Your task to perform on an android device: Go to accessibility settings Image 0: 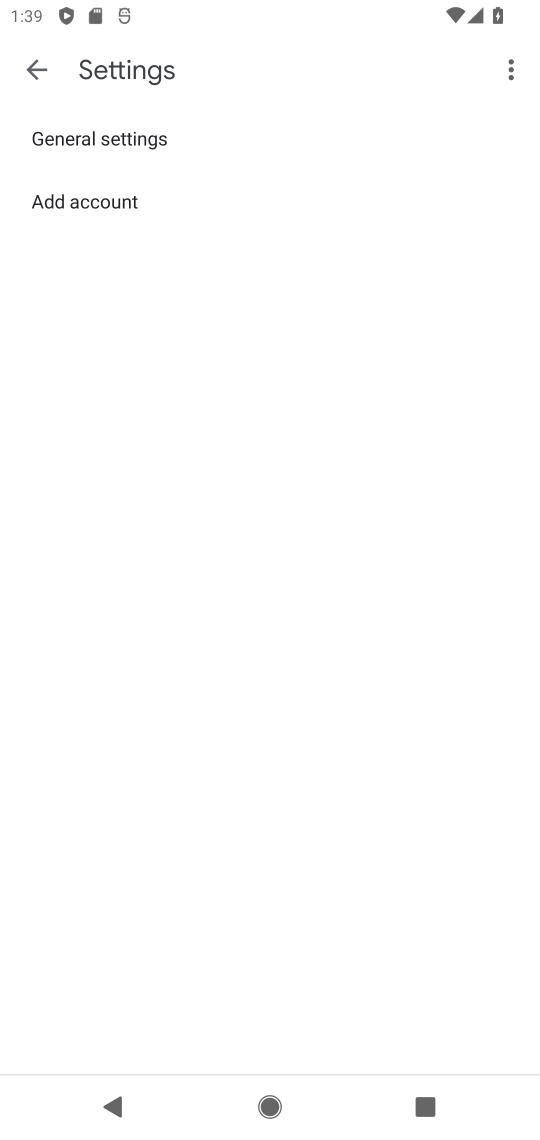
Step 0: press home button
Your task to perform on an android device: Go to accessibility settings Image 1: 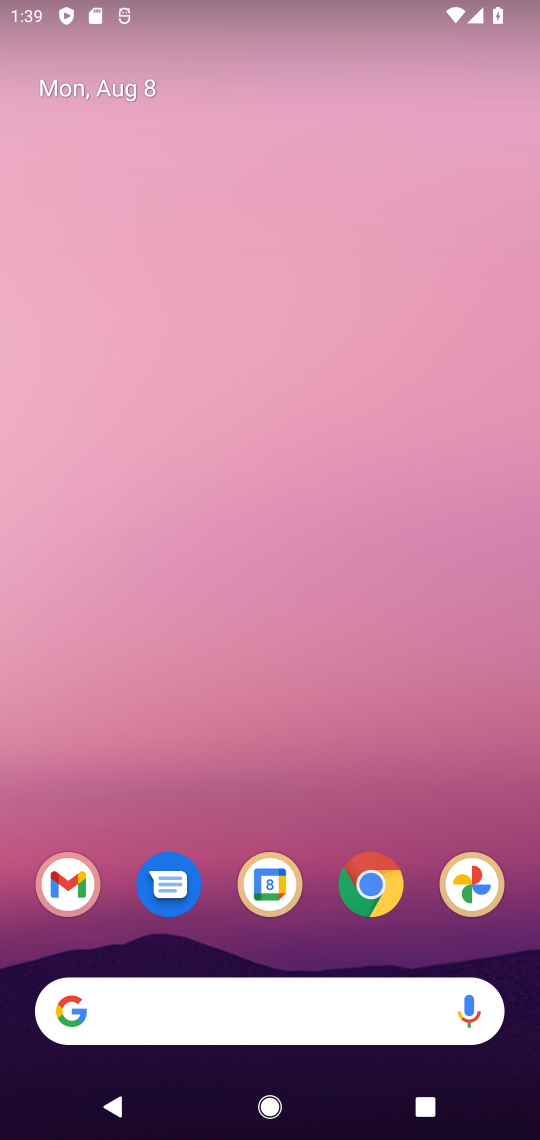
Step 1: drag from (336, 763) to (238, 4)
Your task to perform on an android device: Go to accessibility settings Image 2: 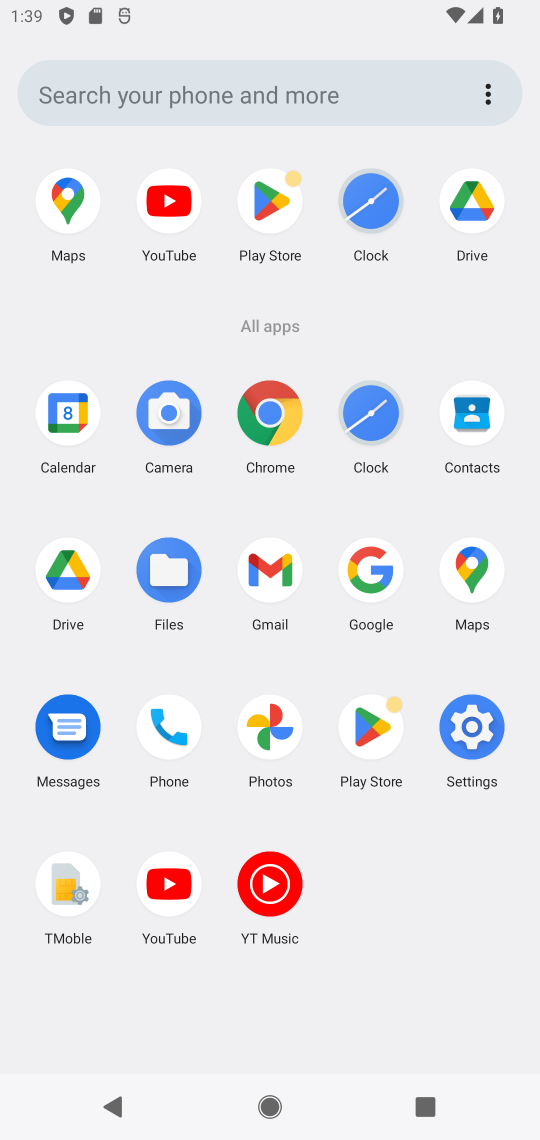
Step 2: click (484, 741)
Your task to perform on an android device: Go to accessibility settings Image 3: 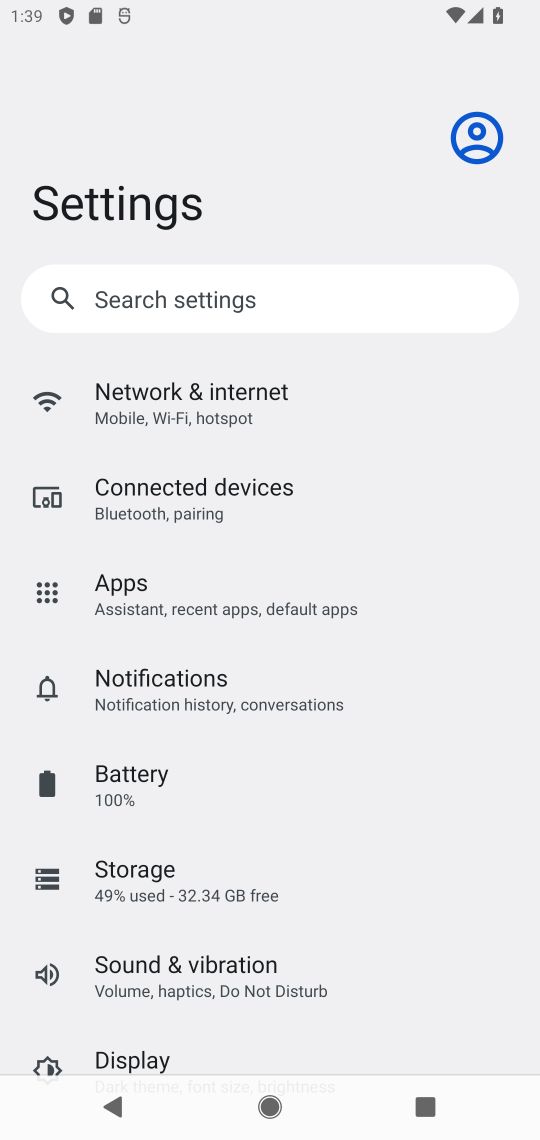
Step 3: drag from (349, 930) to (291, 539)
Your task to perform on an android device: Go to accessibility settings Image 4: 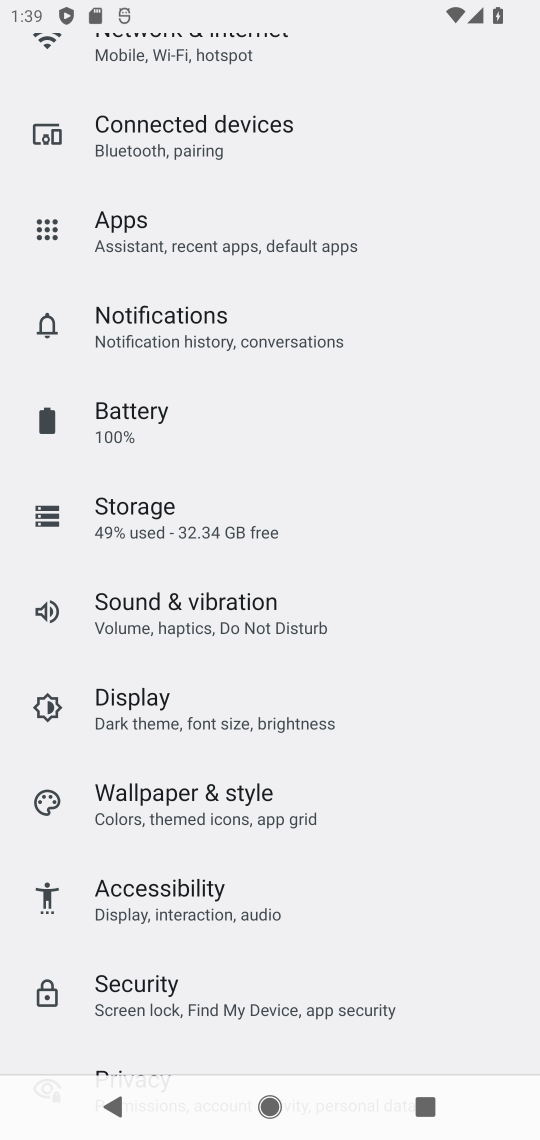
Step 4: click (175, 890)
Your task to perform on an android device: Go to accessibility settings Image 5: 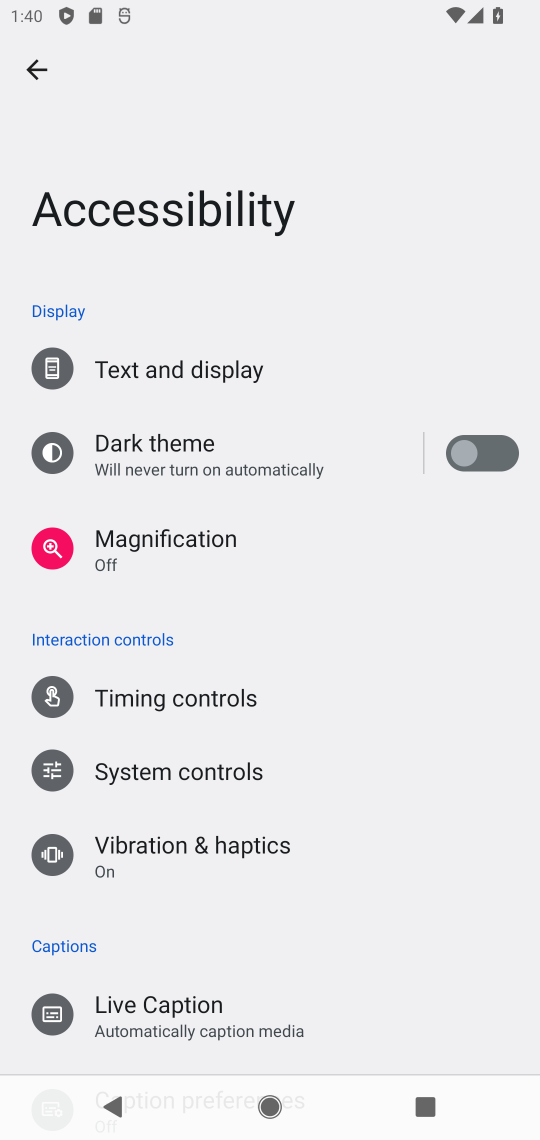
Step 5: task complete